Your task to perform on an android device: Show me the alarms in the clock app Image 0: 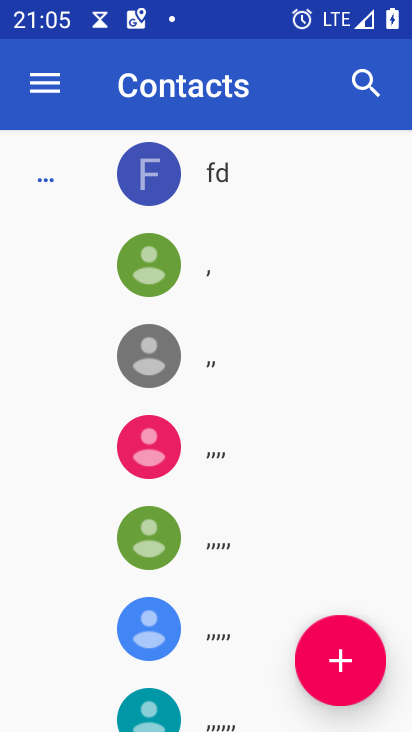
Step 0: press home button
Your task to perform on an android device: Show me the alarms in the clock app Image 1: 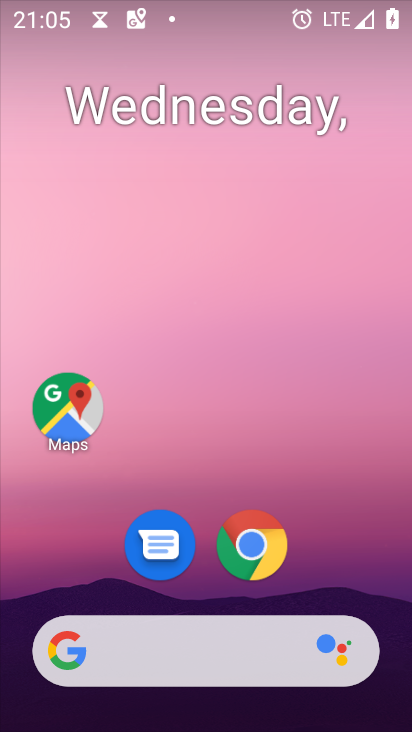
Step 1: drag from (192, 653) to (325, 132)
Your task to perform on an android device: Show me the alarms in the clock app Image 2: 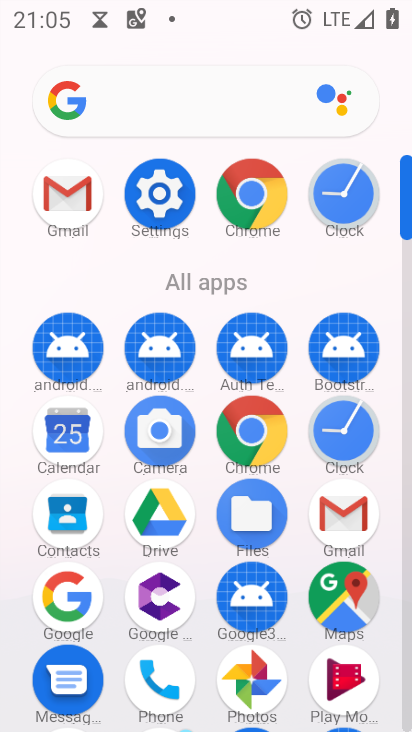
Step 2: click (339, 446)
Your task to perform on an android device: Show me the alarms in the clock app Image 3: 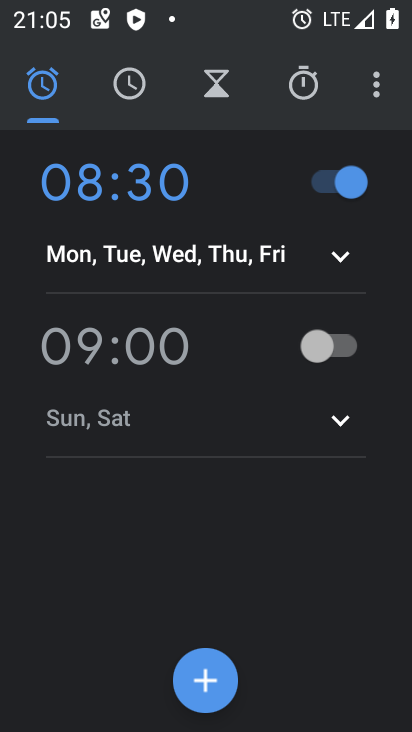
Step 3: task complete